Your task to perform on an android device: create a new album in the google photos Image 0: 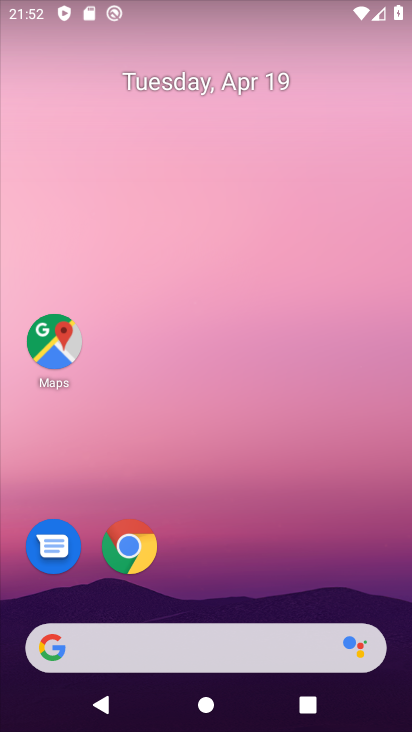
Step 0: drag from (194, 618) to (346, 7)
Your task to perform on an android device: create a new album in the google photos Image 1: 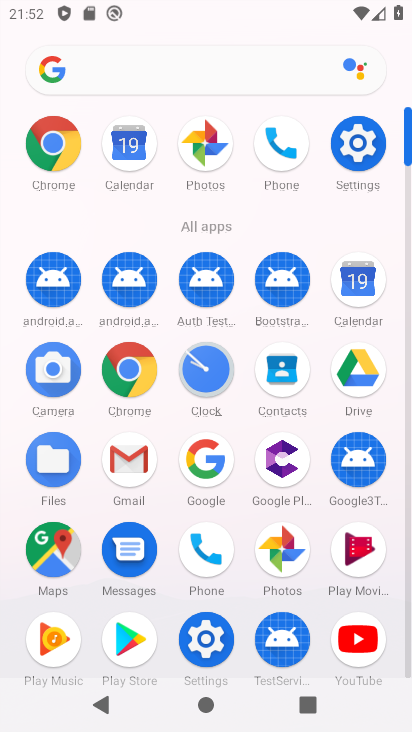
Step 1: click (285, 558)
Your task to perform on an android device: create a new album in the google photos Image 2: 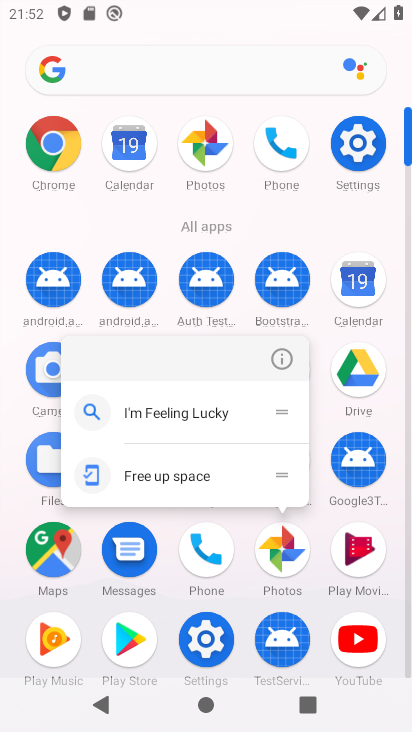
Step 2: click (280, 555)
Your task to perform on an android device: create a new album in the google photos Image 3: 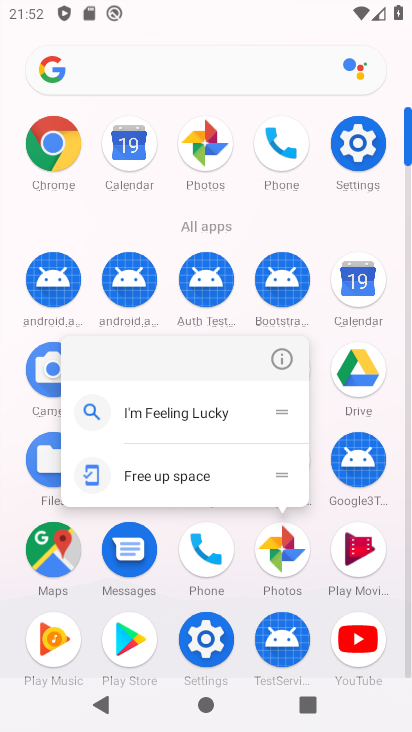
Step 3: click (285, 544)
Your task to perform on an android device: create a new album in the google photos Image 4: 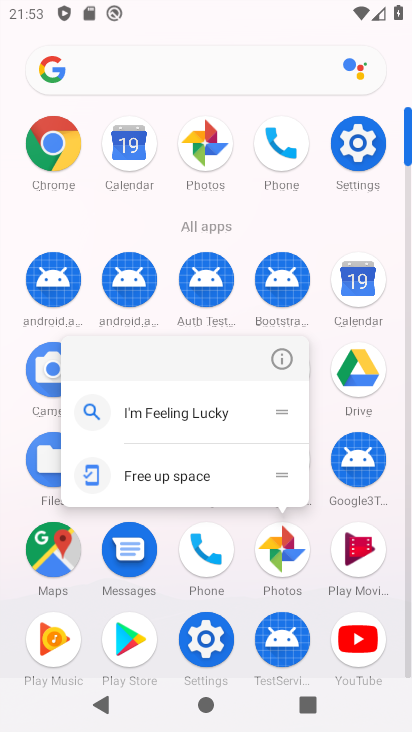
Step 4: click (288, 555)
Your task to perform on an android device: create a new album in the google photos Image 5: 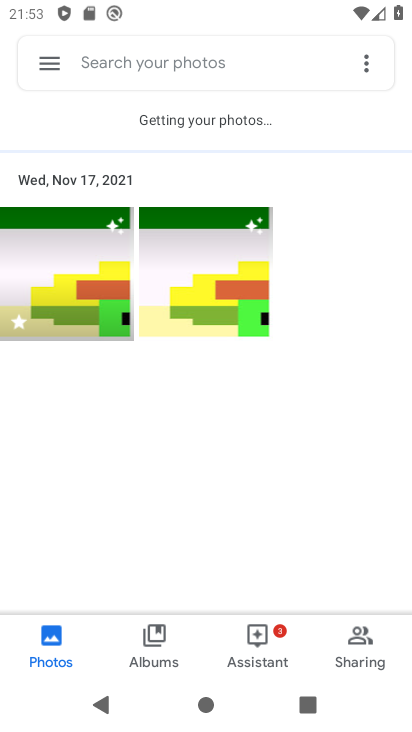
Step 5: click (54, 283)
Your task to perform on an android device: create a new album in the google photos Image 6: 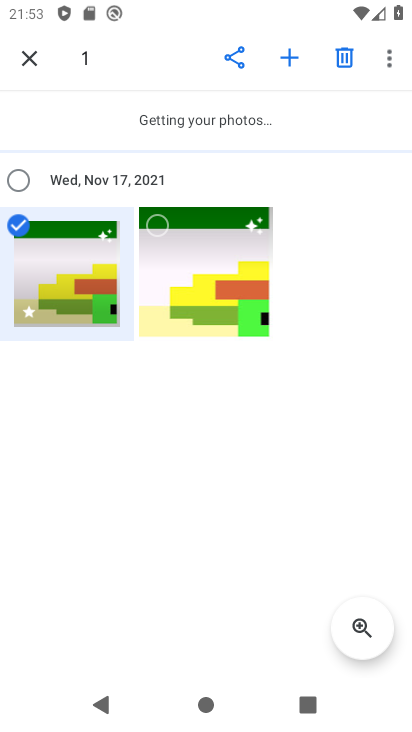
Step 6: click (299, 56)
Your task to perform on an android device: create a new album in the google photos Image 7: 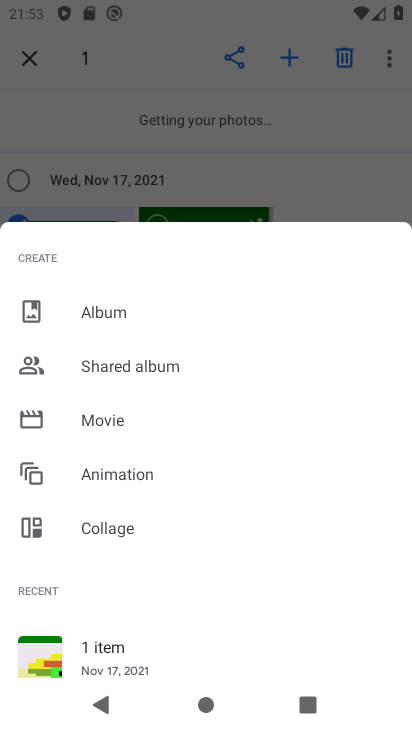
Step 7: click (106, 324)
Your task to perform on an android device: create a new album in the google photos Image 8: 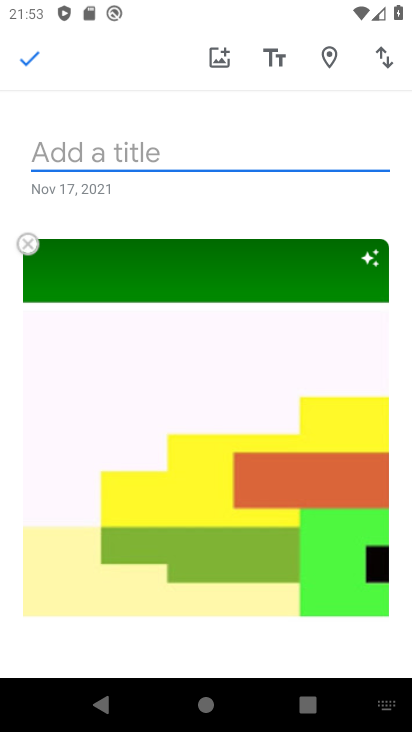
Step 8: type "f"
Your task to perform on an android device: create a new album in the google photos Image 9: 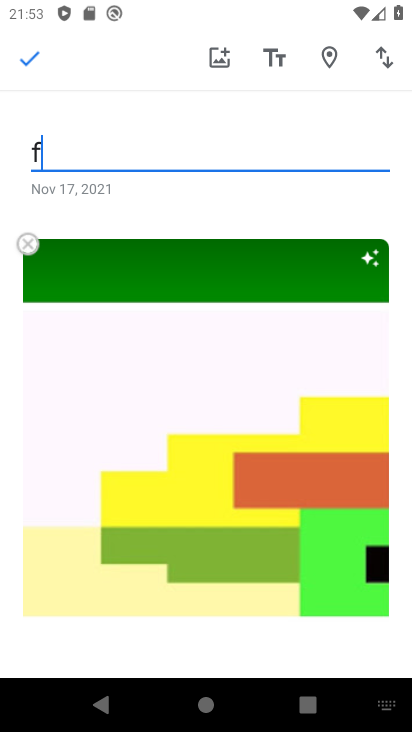
Step 9: type ""
Your task to perform on an android device: create a new album in the google photos Image 10: 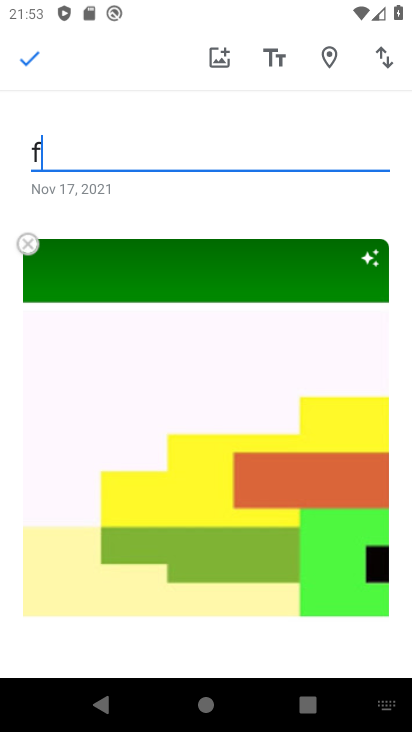
Step 10: click (23, 57)
Your task to perform on an android device: create a new album in the google photos Image 11: 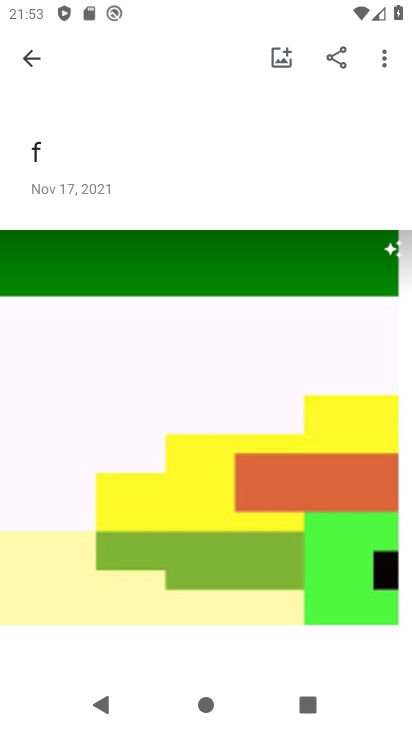
Step 11: task complete